Your task to perform on an android device: Open sound settings Image 0: 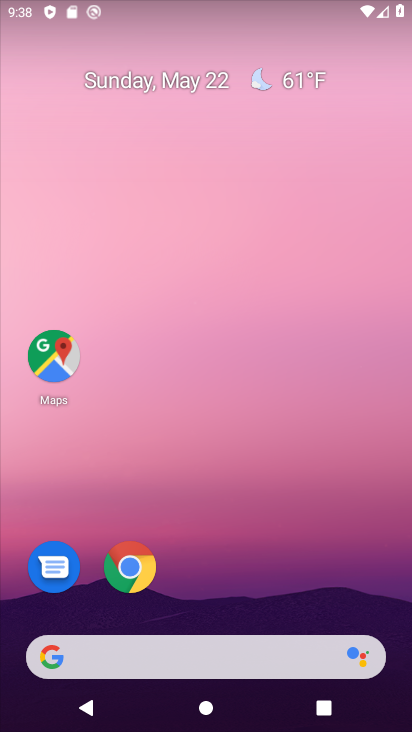
Step 0: drag from (230, 648) to (142, 21)
Your task to perform on an android device: Open sound settings Image 1: 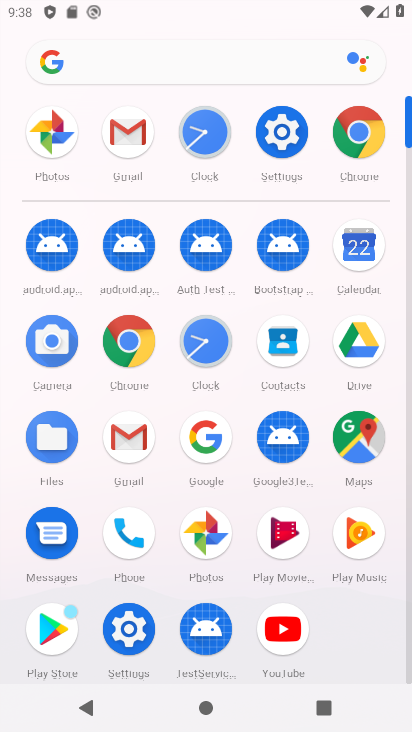
Step 1: click (293, 142)
Your task to perform on an android device: Open sound settings Image 2: 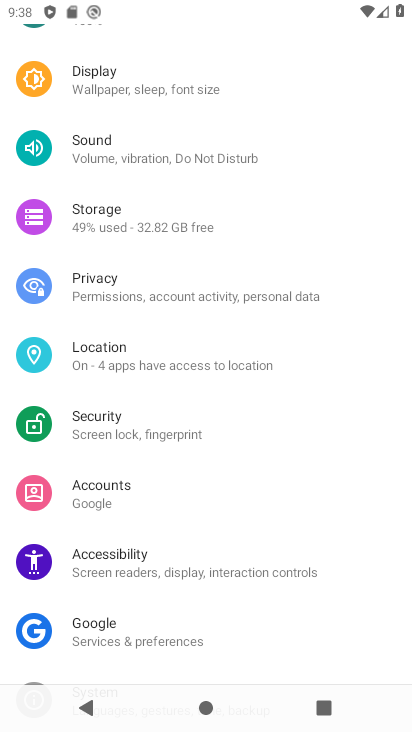
Step 2: click (102, 153)
Your task to perform on an android device: Open sound settings Image 3: 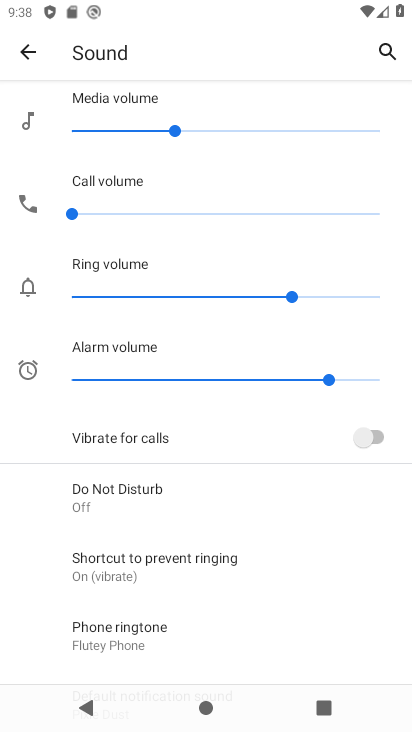
Step 3: task complete